Your task to perform on an android device: turn off priority inbox in the gmail app Image 0: 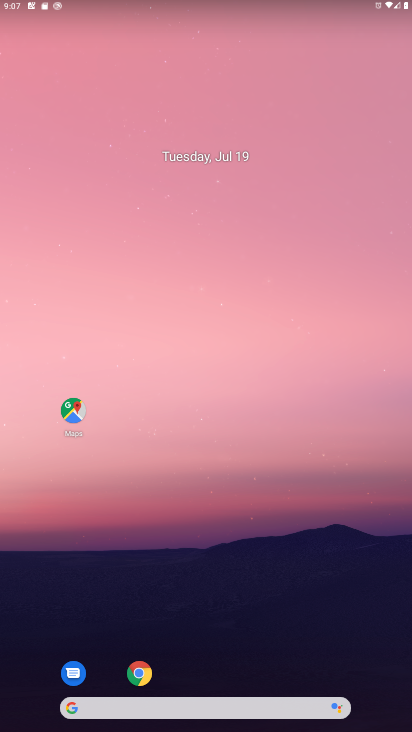
Step 0: drag from (373, 651) to (349, 180)
Your task to perform on an android device: turn off priority inbox in the gmail app Image 1: 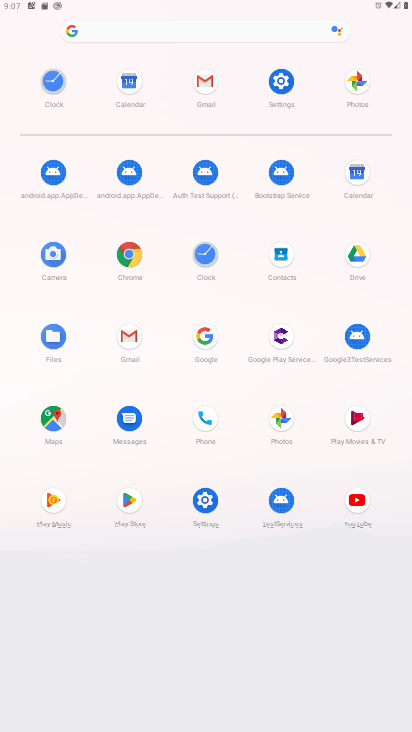
Step 1: click (128, 338)
Your task to perform on an android device: turn off priority inbox in the gmail app Image 2: 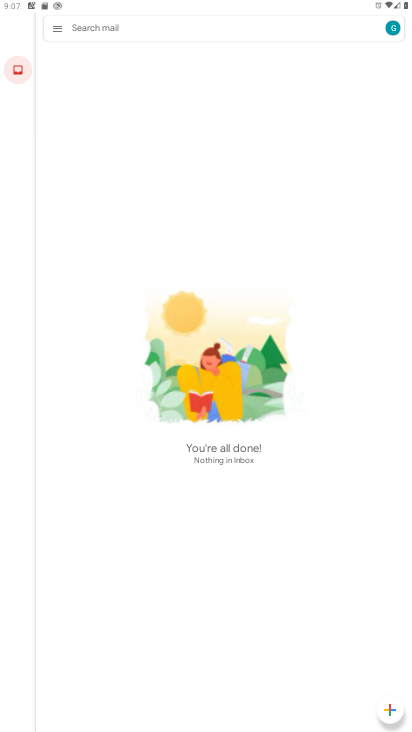
Step 2: click (56, 35)
Your task to perform on an android device: turn off priority inbox in the gmail app Image 3: 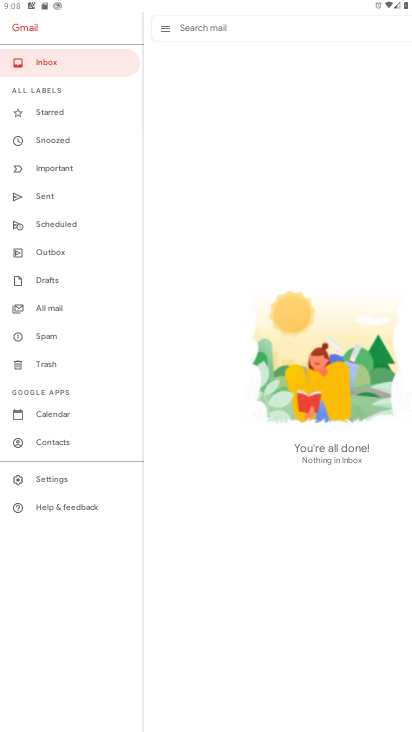
Step 3: click (48, 475)
Your task to perform on an android device: turn off priority inbox in the gmail app Image 4: 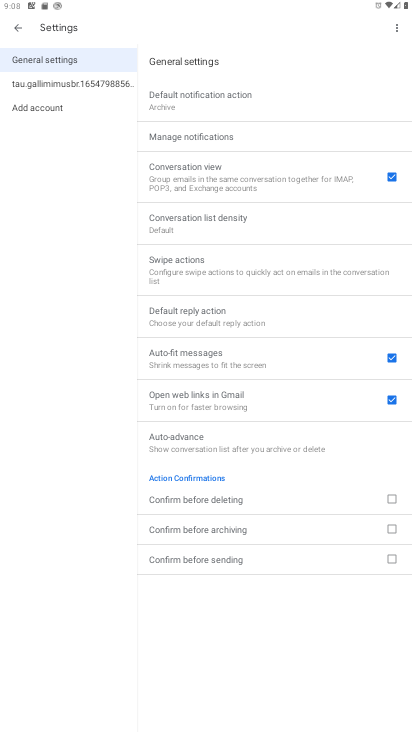
Step 4: click (63, 85)
Your task to perform on an android device: turn off priority inbox in the gmail app Image 5: 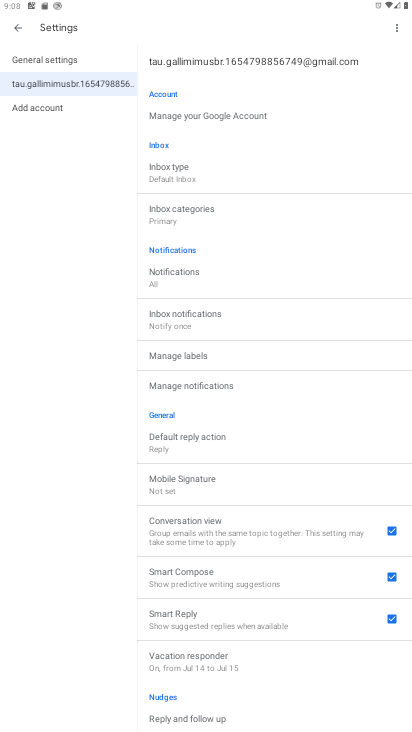
Step 5: click (169, 172)
Your task to perform on an android device: turn off priority inbox in the gmail app Image 6: 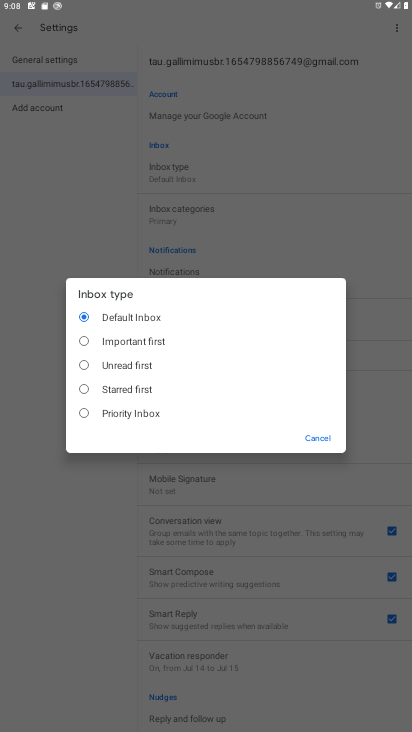
Step 6: task complete